Your task to perform on an android device: turn on priority inbox in the gmail app Image 0: 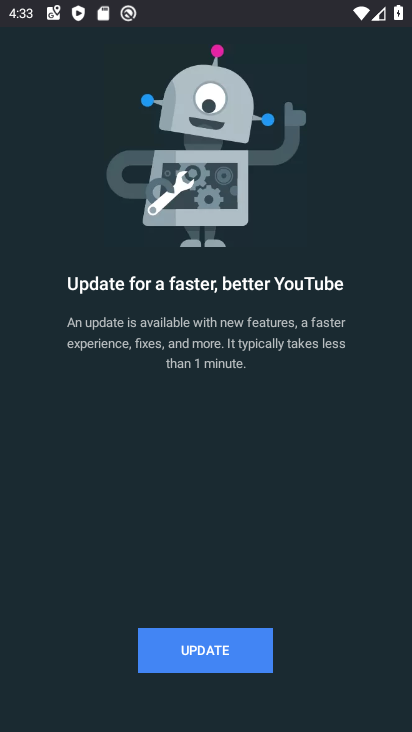
Step 0: press home button
Your task to perform on an android device: turn on priority inbox in the gmail app Image 1: 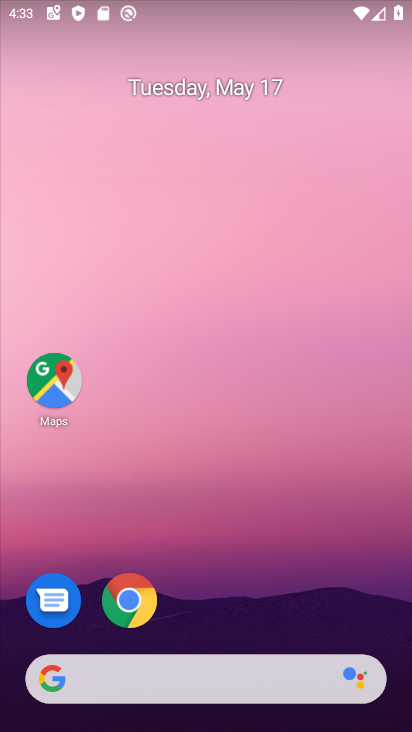
Step 1: drag from (207, 619) to (240, 155)
Your task to perform on an android device: turn on priority inbox in the gmail app Image 2: 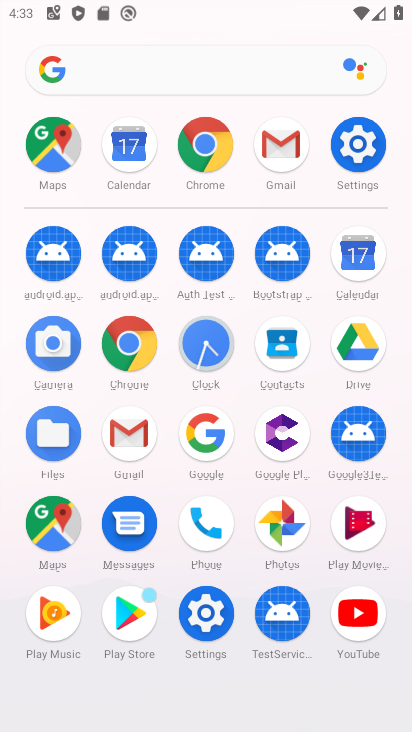
Step 2: click (132, 434)
Your task to perform on an android device: turn on priority inbox in the gmail app Image 3: 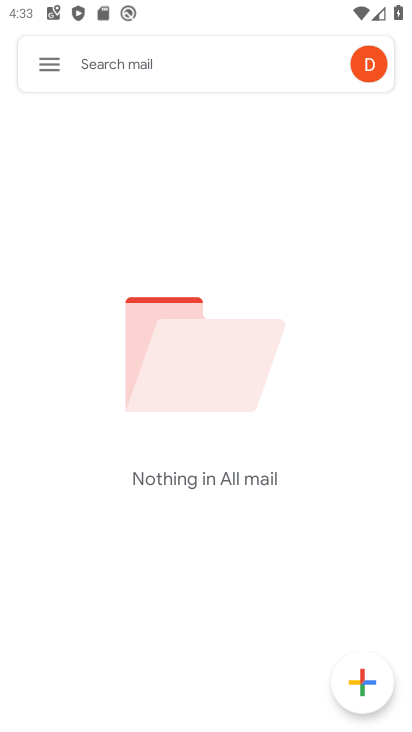
Step 3: click (50, 62)
Your task to perform on an android device: turn on priority inbox in the gmail app Image 4: 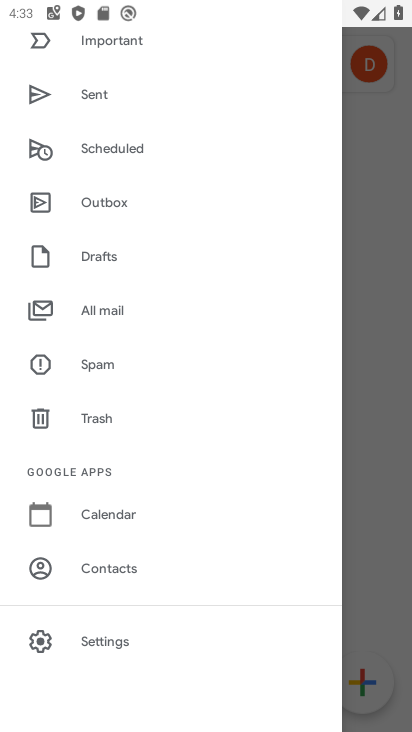
Step 4: click (98, 650)
Your task to perform on an android device: turn on priority inbox in the gmail app Image 5: 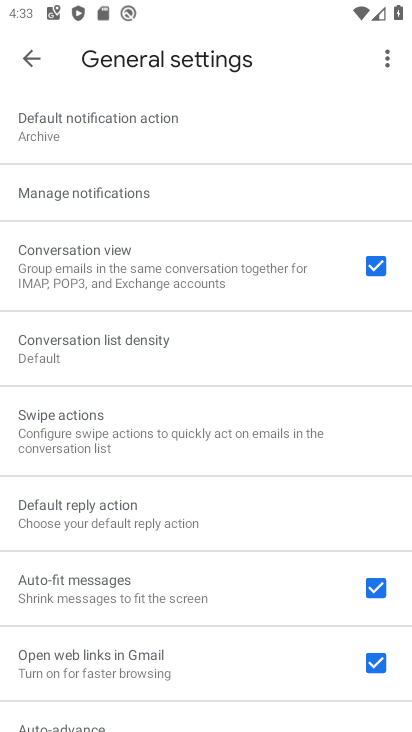
Step 5: drag from (124, 170) to (111, 637)
Your task to perform on an android device: turn on priority inbox in the gmail app Image 6: 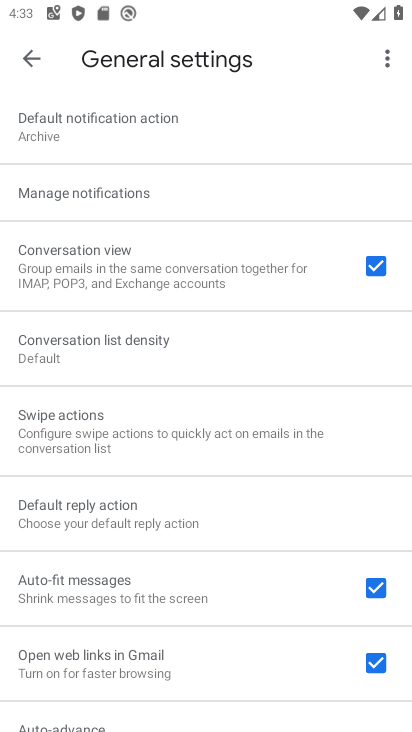
Step 6: click (36, 58)
Your task to perform on an android device: turn on priority inbox in the gmail app Image 7: 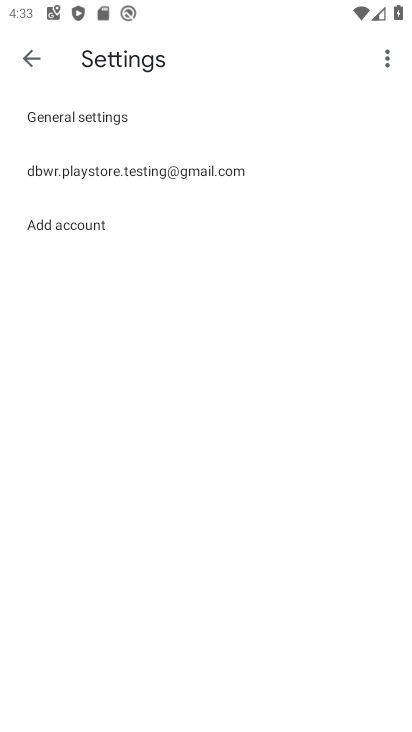
Step 7: click (136, 175)
Your task to perform on an android device: turn on priority inbox in the gmail app Image 8: 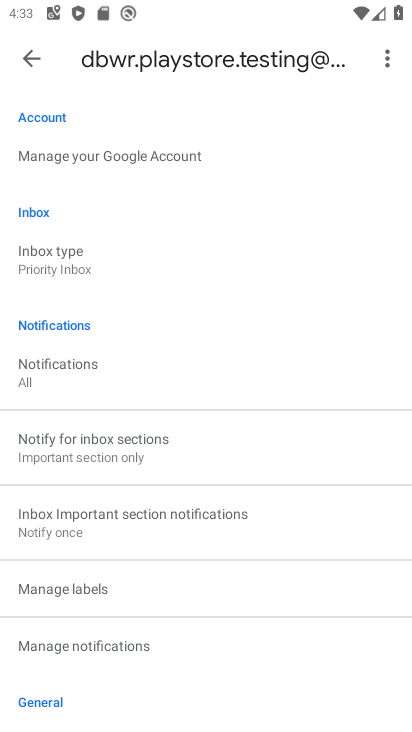
Step 8: click (101, 242)
Your task to perform on an android device: turn on priority inbox in the gmail app Image 9: 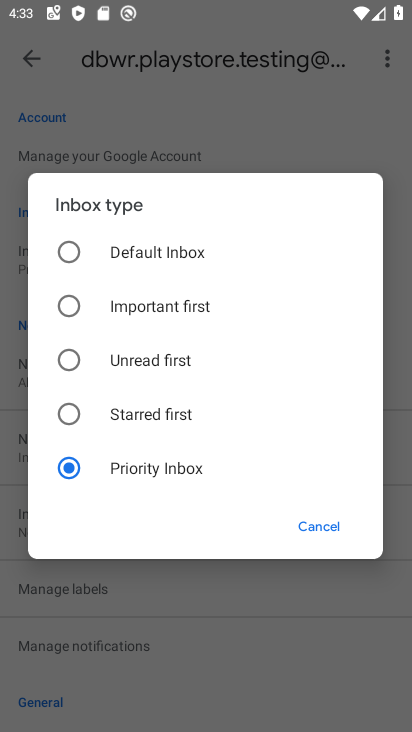
Step 9: task complete